Your task to perform on an android device: Go to internet settings Image 0: 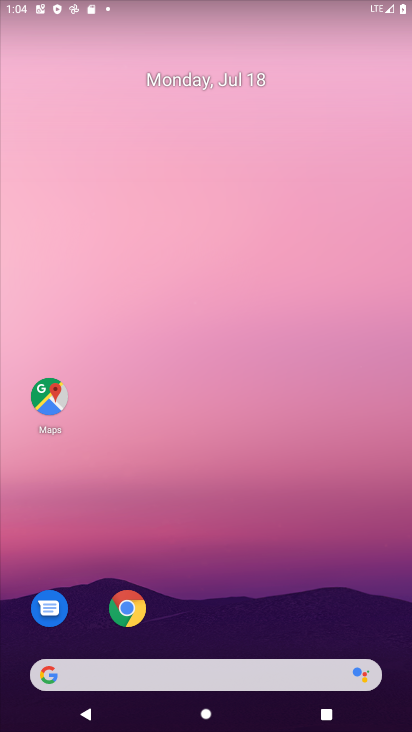
Step 0: drag from (369, 629) to (217, 58)
Your task to perform on an android device: Go to internet settings Image 1: 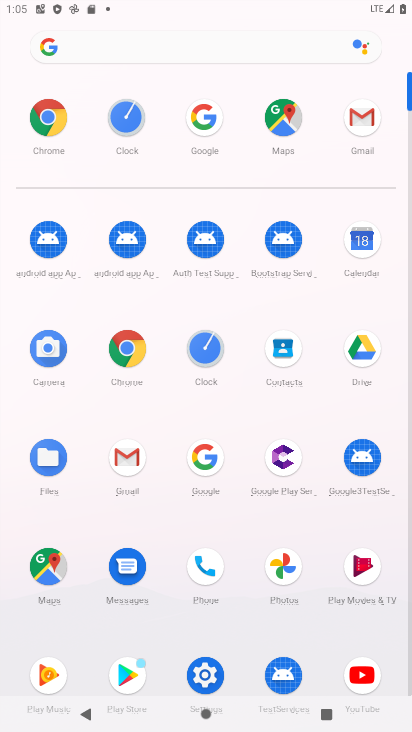
Step 1: click (196, 665)
Your task to perform on an android device: Go to internet settings Image 2: 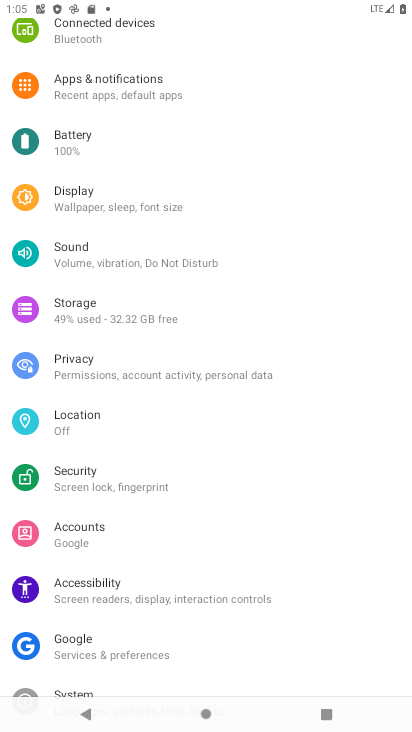
Step 2: drag from (149, 57) to (236, 658)
Your task to perform on an android device: Go to internet settings Image 3: 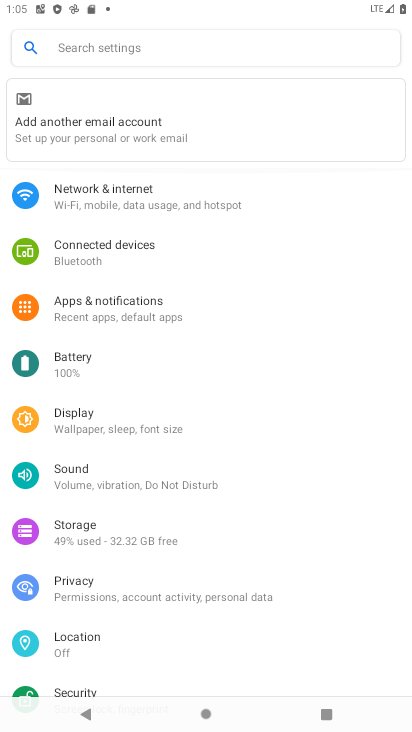
Step 3: drag from (144, 124) to (170, 608)
Your task to perform on an android device: Go to internet settings Image 4: 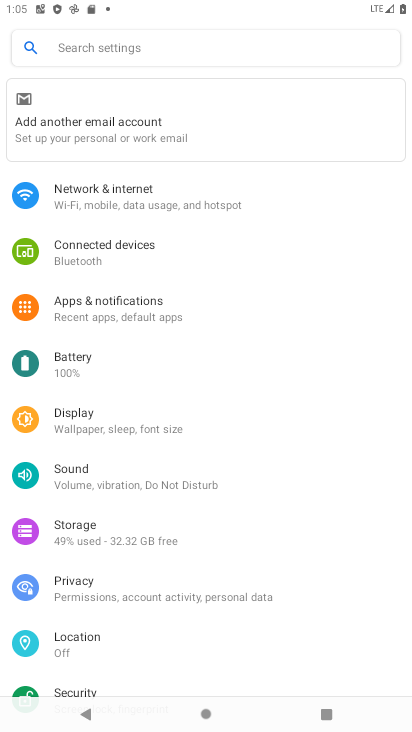
Step 4: click (189, 205)
Your task to perform on an android device: Go to internet settings Image 5: 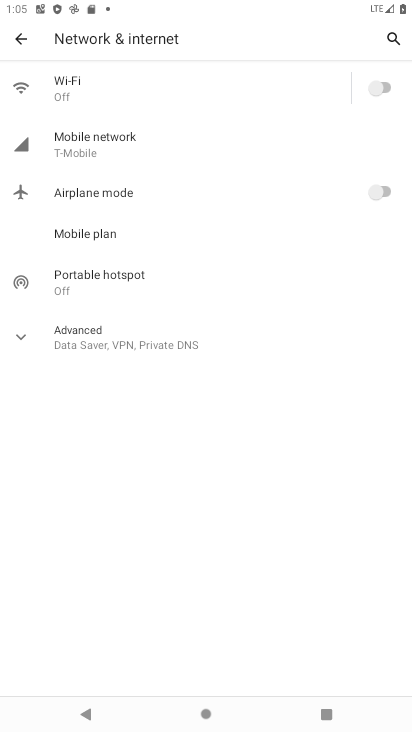
Step 5: task complete